Your task to perform on an android device: Do I have any events today? Image 0: 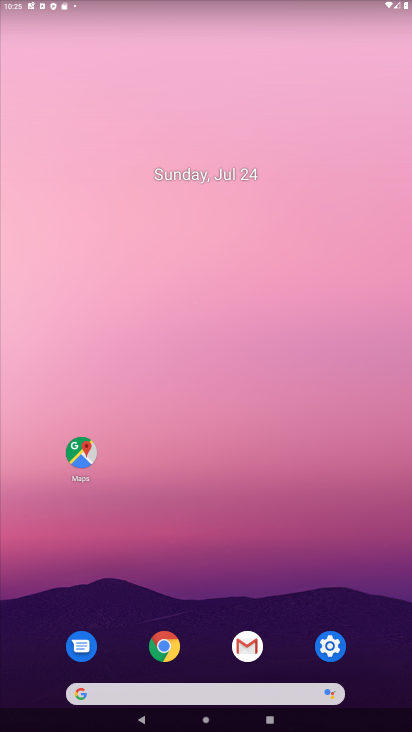
Step 0: drag from (274, 700) to (121, 101)
Your task to perform on an android device: Do I have any events today? Image 1: 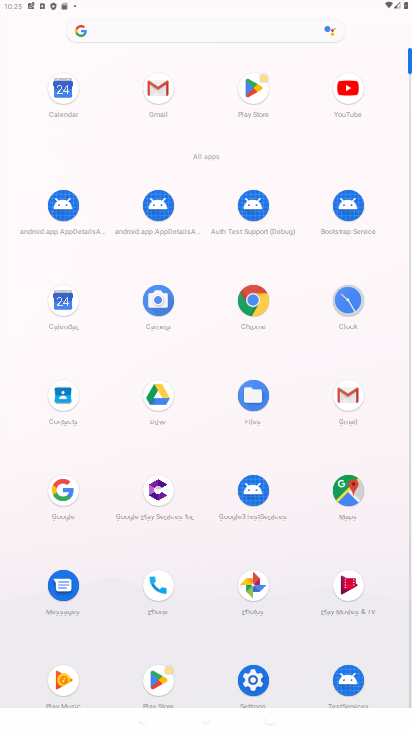
Step 1: click (65, 299)
Your task to perform on an android device: Do I have any events today? Image 2: 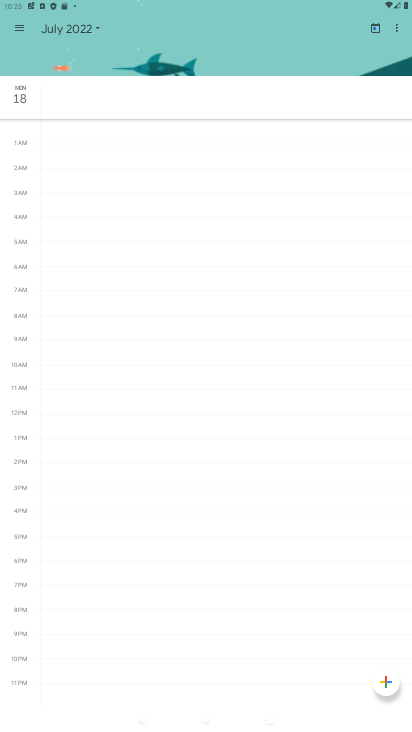
Step 2: click (11, 25)
Your task to perform on an android device: Do I have any events today? Image 3: 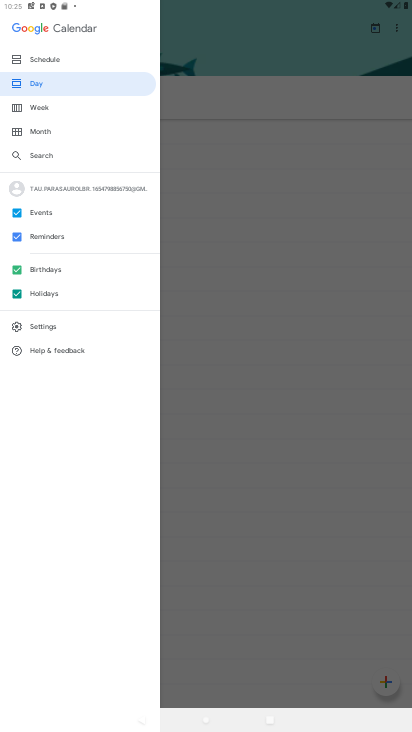
Step 3: click (43, 55)
Your task to perform on an android device: Do I have any events today? Image 4: 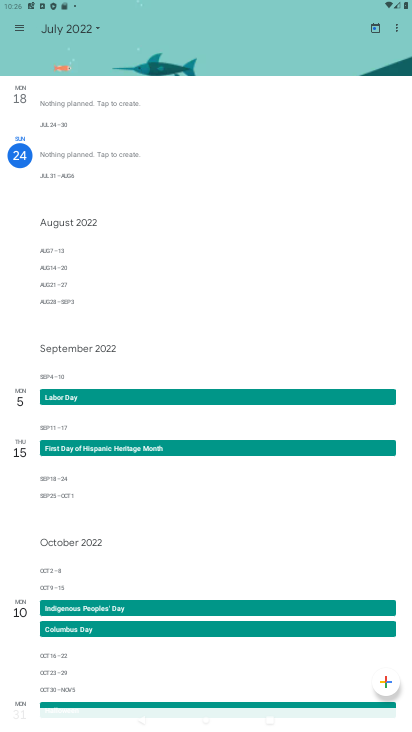
Step 4: task complete